Your task to perform on an android device: How big is the earth? Image 0: 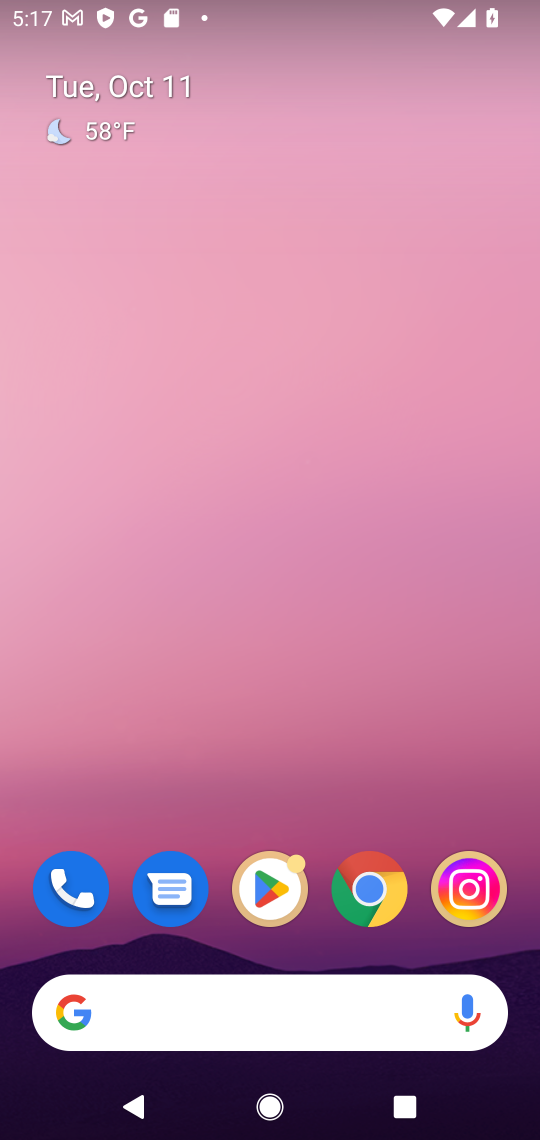
Step 0: drag from (159, 988) to (198, 244)
Your task to perform on an android device: How big is the earth? Image 1: 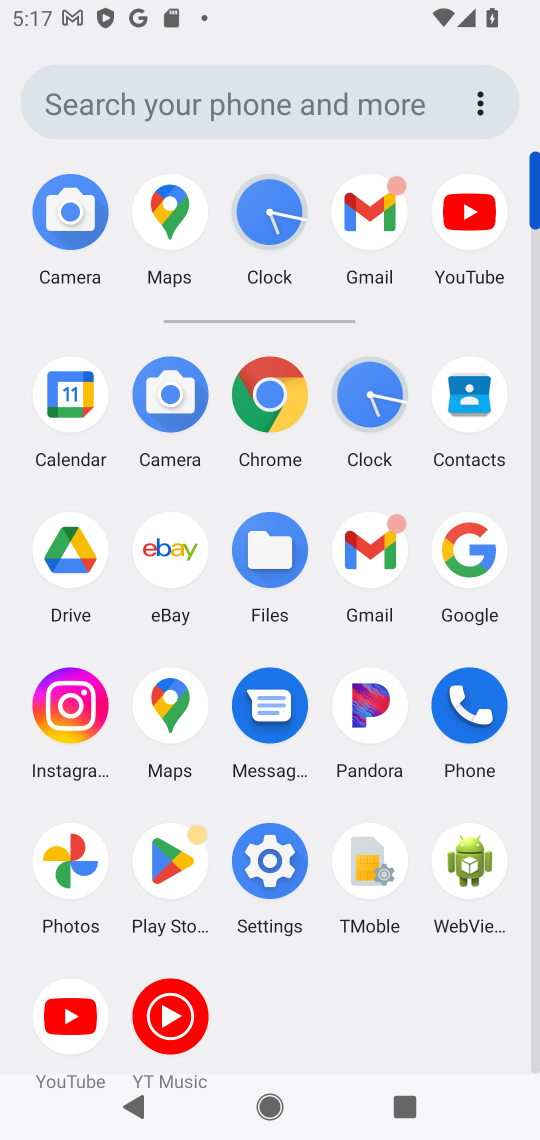
Step 1: click (482, 542)
Your task to perform on an android device: How big is the earth? Image 2: 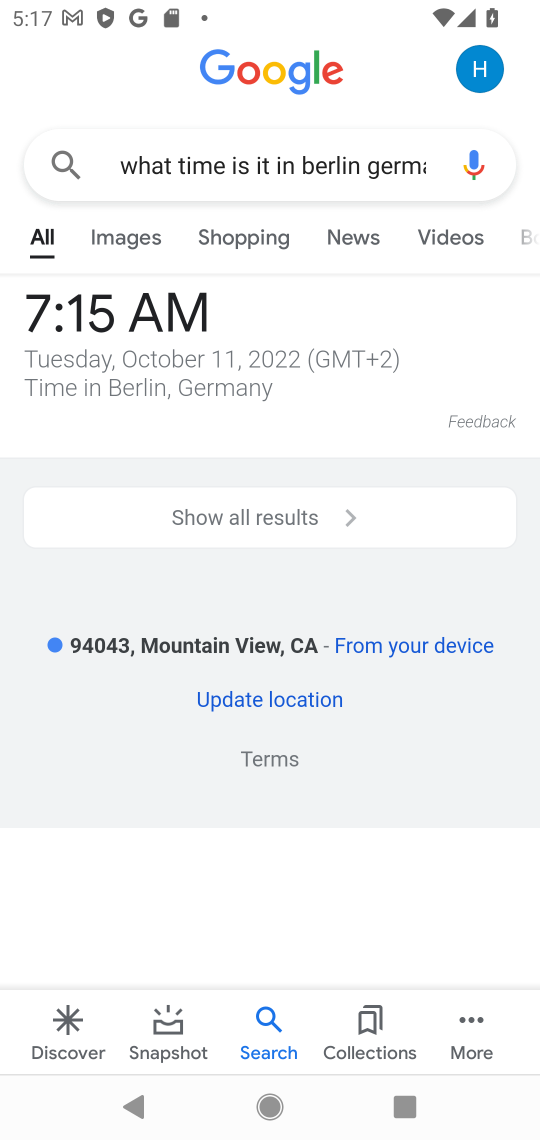
Step 2: click (343, 160)
Your task to perform on an android device: How big is the earth? Image 3: 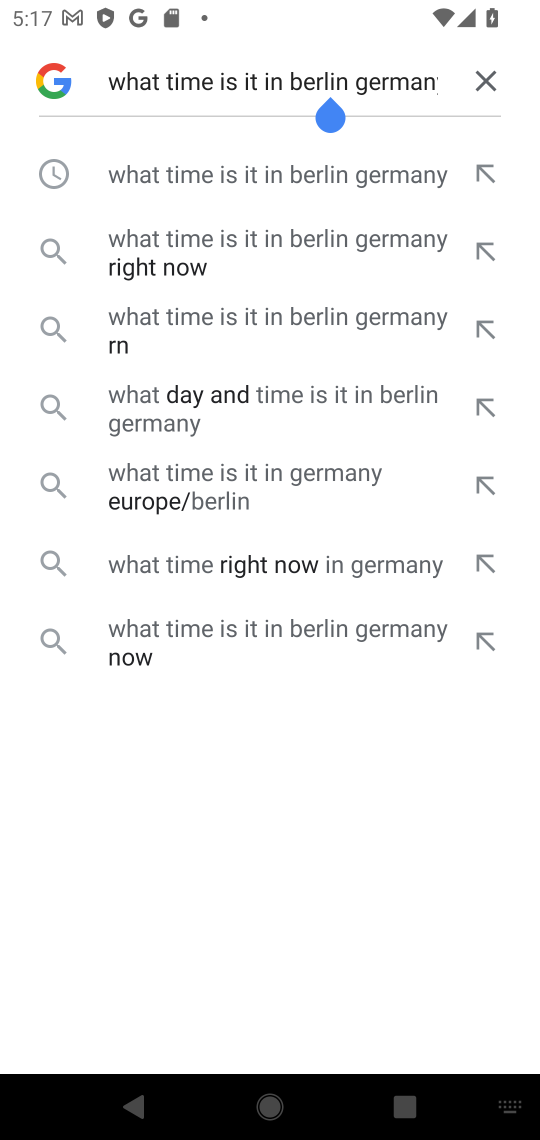
Step 3: click (484, 72)
Your task to perform on an android device: How big is the earth? Image 4: 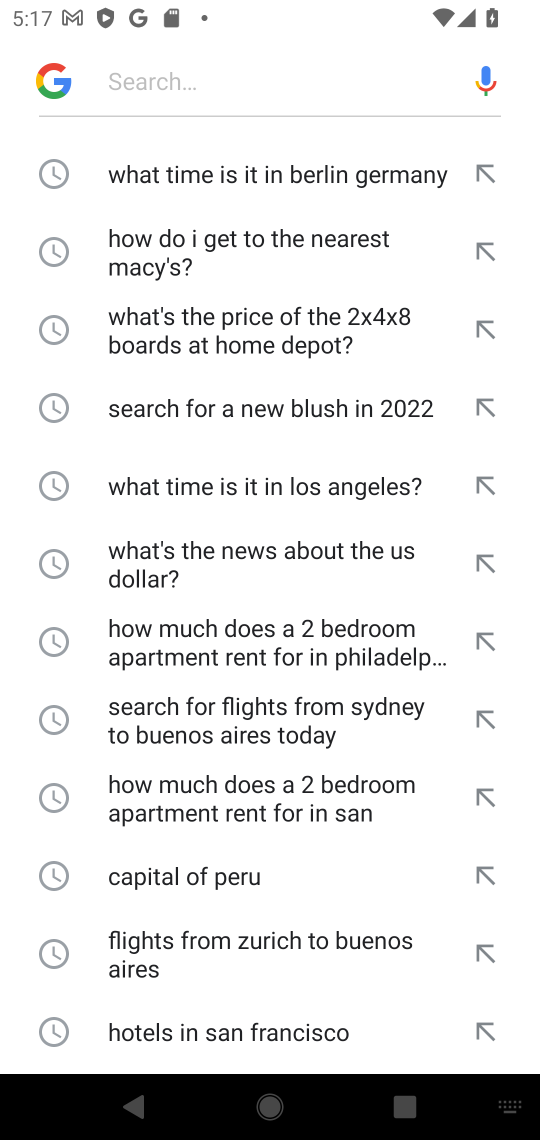
Step 4: click (252, 72)
Your task to perform on an android device: How big is the earth? Image 5: 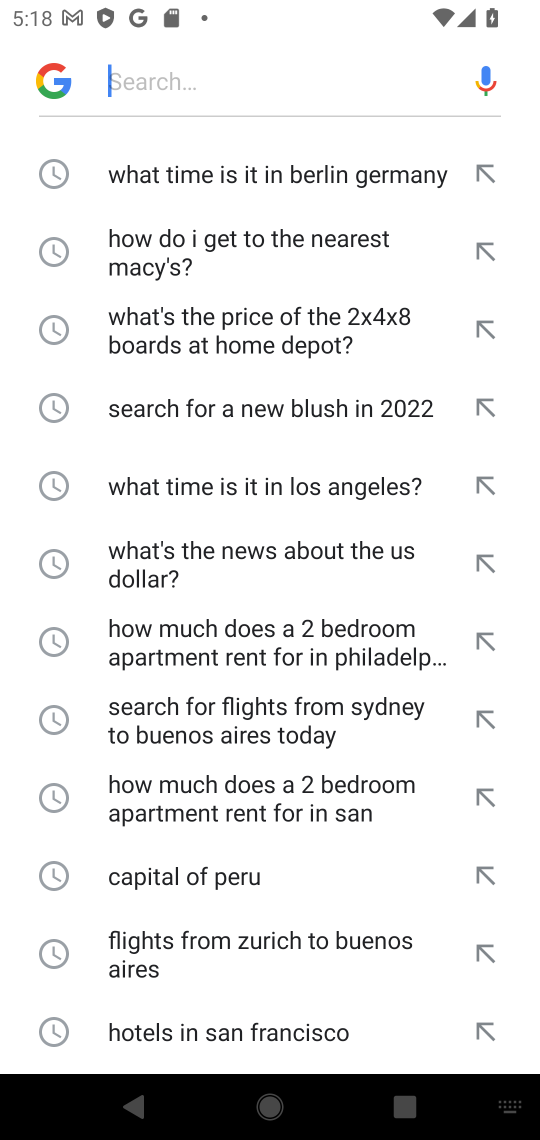
Step 5: type "How big is the earth "
Your task to perform on an android device: How big is the earth? Image 6: 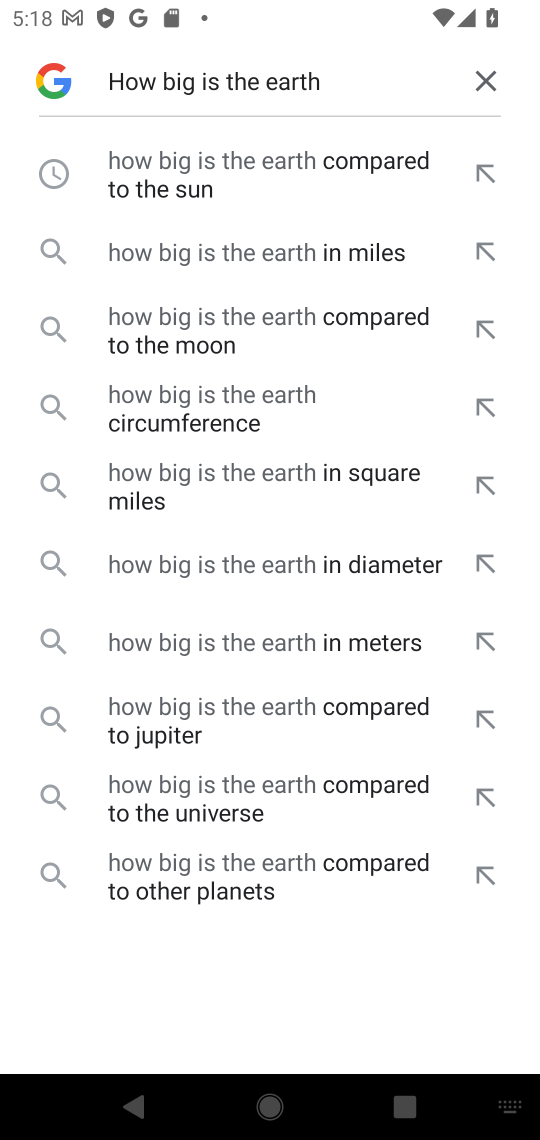
Step 6: click (237, 161)
Your task to perform on an android device: How big is the earth? Image 7: 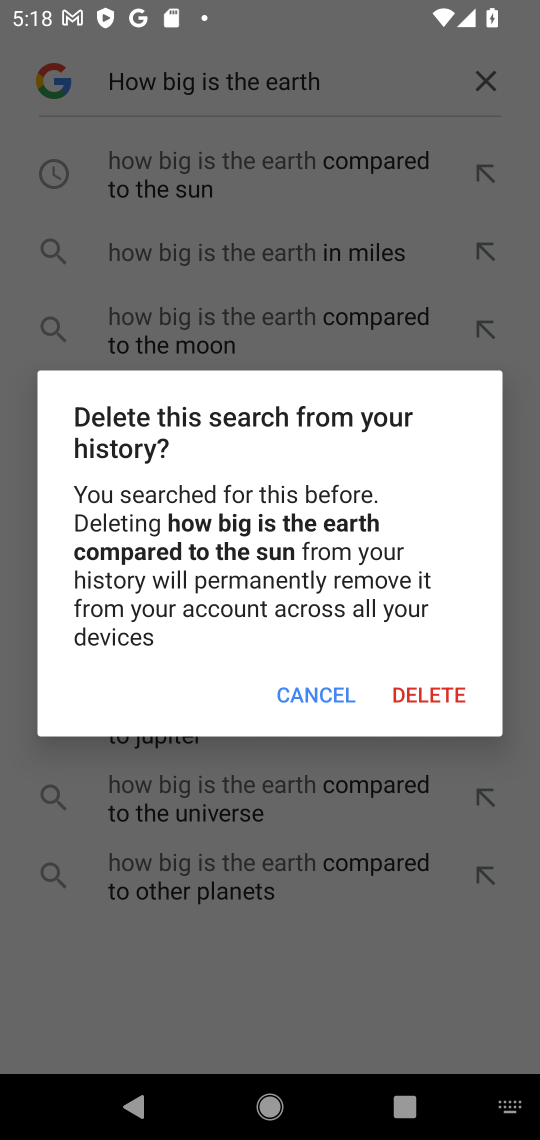
Step 7: click (317, 692)
Your task to perform on an android device: How big is the earth? Image 8: 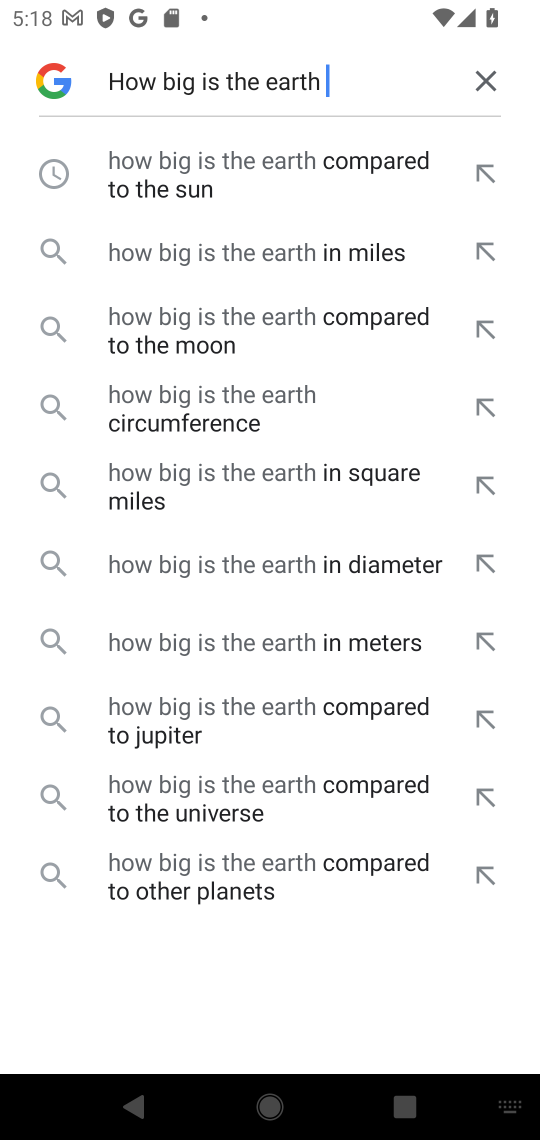
Step 8: click (343, 258)
Your task to perform on an android device: How big is the earth? Image 9: 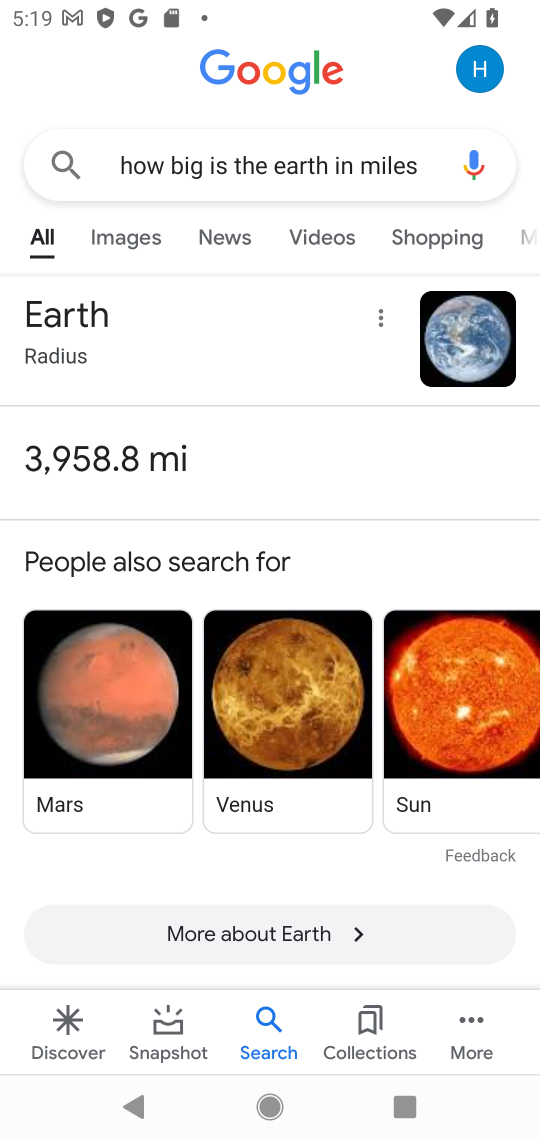
Step 9: task complete